Your task to perform on an android device: Open Chrome and go to the settings page Image 0: 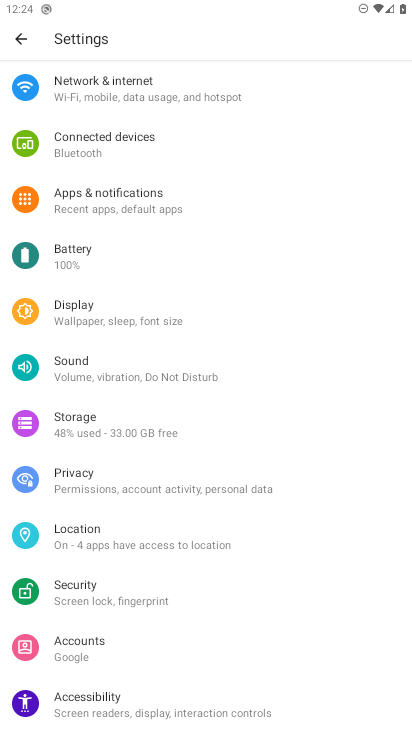
Step 0: press home button
Your task to perform on an android device: Open Chrome and go to the settings page Image 1: 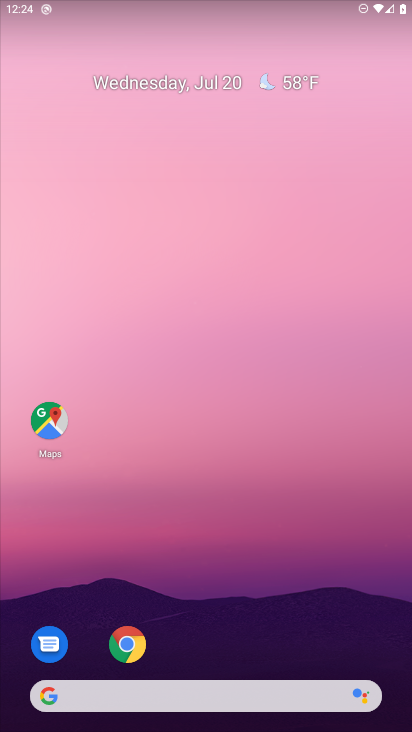
Step 1: click (128, 649)
Your task to perform on an android device: Open Chrome and go to the settings page Image 2: 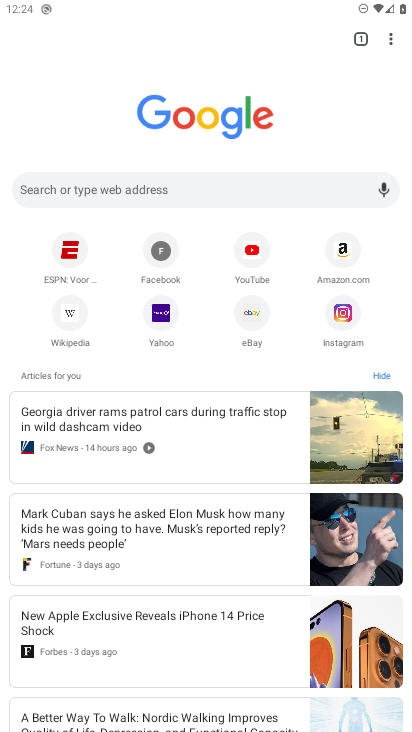
Step 2: click (397, 38)
Your task to perform on an android device: Open Chrome and go to the settings page Image 3: 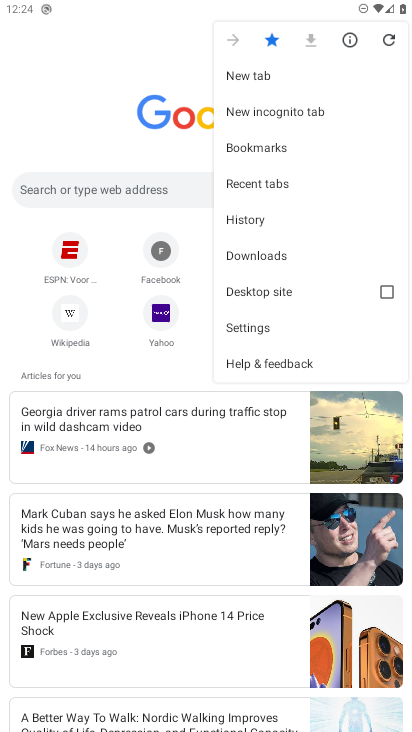
Step 3: click (262, 329)
Your task to perform on an android device: Open Chrome and go to the settings page Image 4: 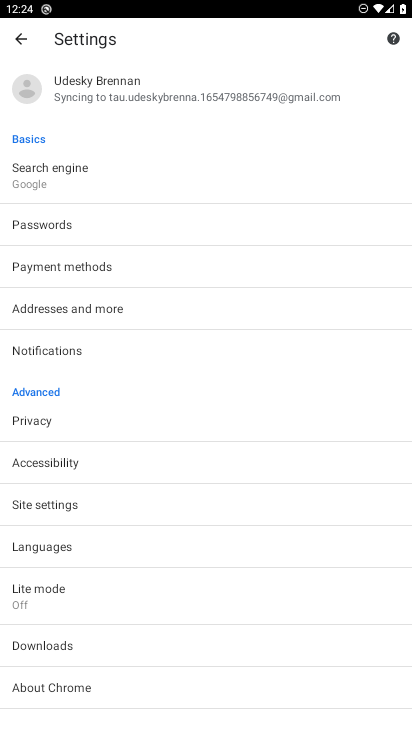
Step 4: task complete